Your task to perform on an android device: turn on the 12-hour format for clock Image 0: 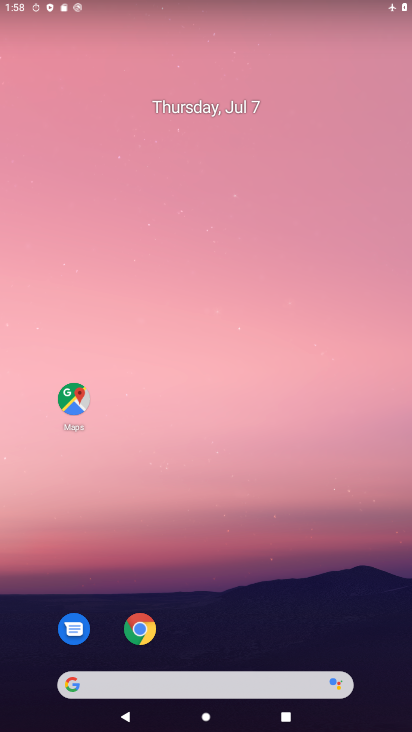
Step 0: drag from (331, 619) to (147, 5)
Your task to perform on an android device: turn on the 12-hour format for clock Image 1: 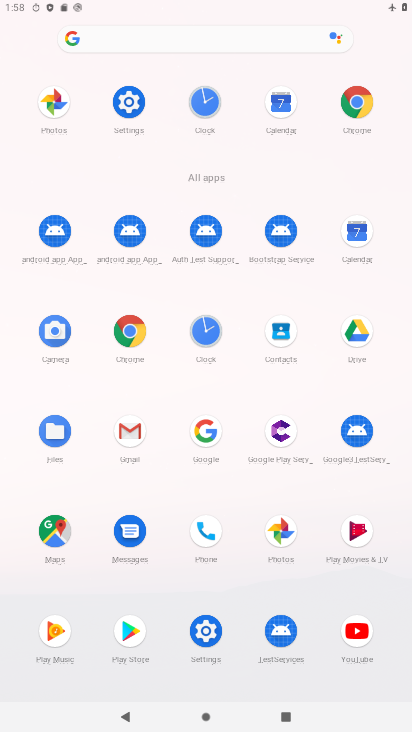
Step 1: click (142, 123)
Your task to perform on an android device: turn on the 12-hour format for clock Image 2: 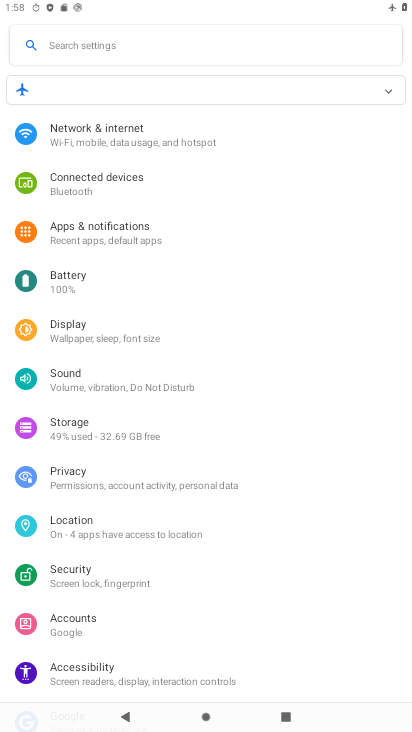
Step 2: press home button
Your task to perform on an android device: turn on the 12-hour format for clock Image 3: 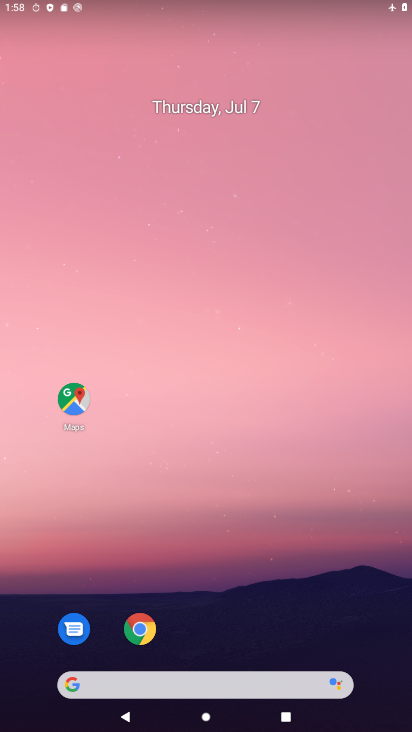
Step 3: drag from (239, 604) to (305, 82)
Your task to perform on an android device: turn on the 12-hour format for clock Image 4: 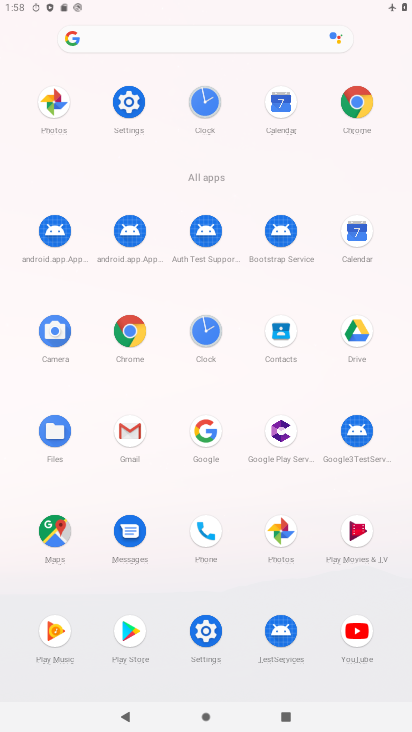
Step 4: click (200, 323)
Your task to perform on an android device: turn on the 12-hour format for clock Image 5: 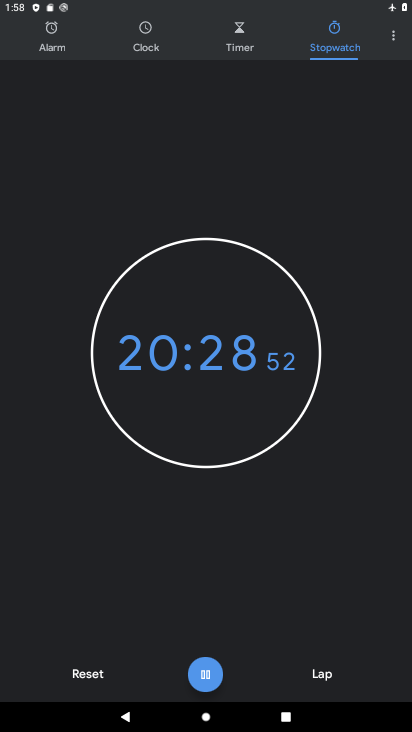
Step 5: click (392, 40)
Your task to perform on an android device: turn on the 12-hour format for clock Image 6: 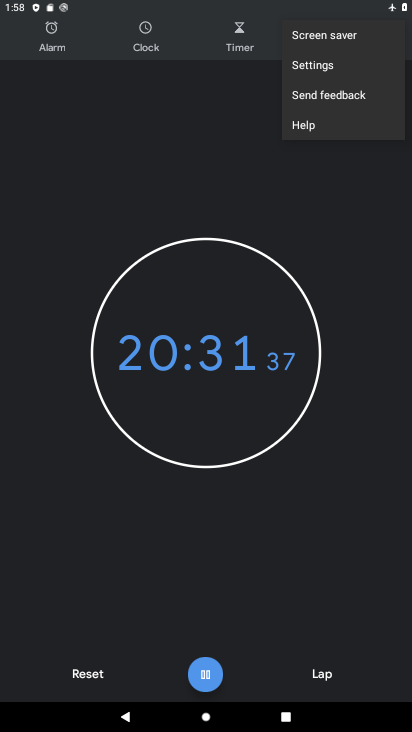
Step 6: click (314, 61)
Your task to perform on an android device: turn on the 12-hour format for clock Image 7: 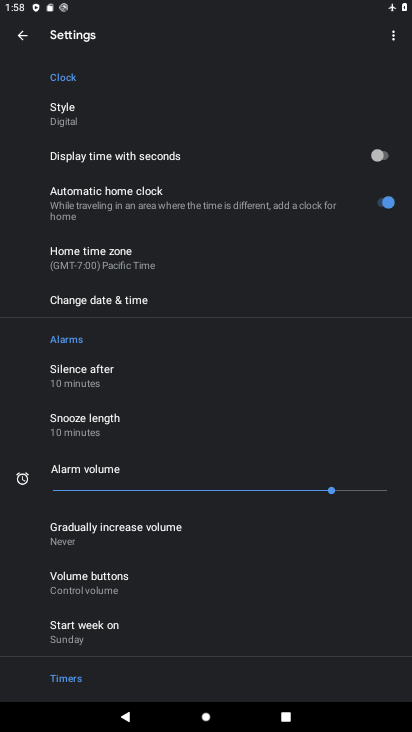
Step 7: drag from (182, 558) to (220, 320)
Your task to perform on an android device: turn on the 12-hour format for clock Image 8: 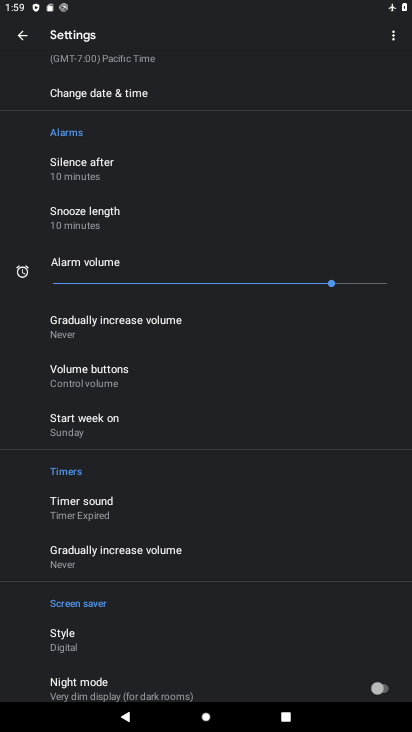
Step 8: click (132, 98)
Your task to perform on an android device: turn on the 12-hour format for clock Image 9: 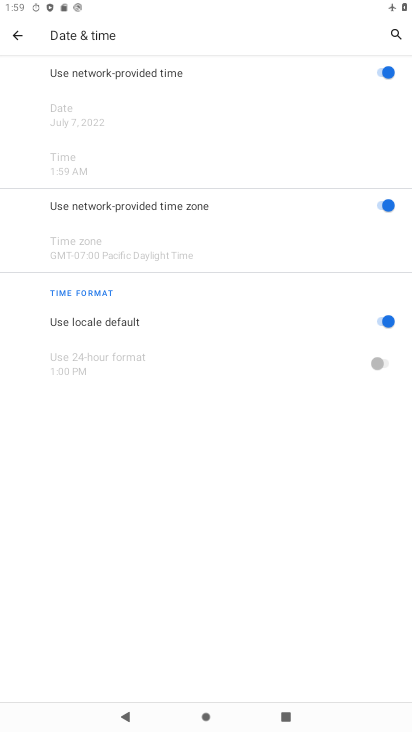
Step 9: task complete